Your task to perform on an android device: delete the emails in spam in the gmail app Image 0: 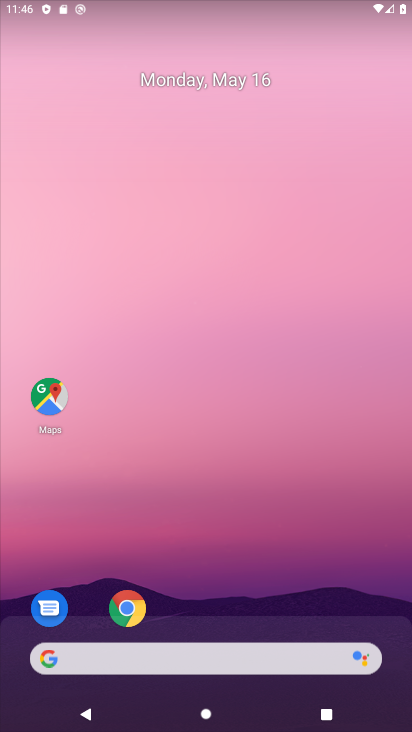
Step 0: drag from (362, 619) to (355, 91)
Your task to perform on an android device: delete the emails in spam in the gmail app Image 1: 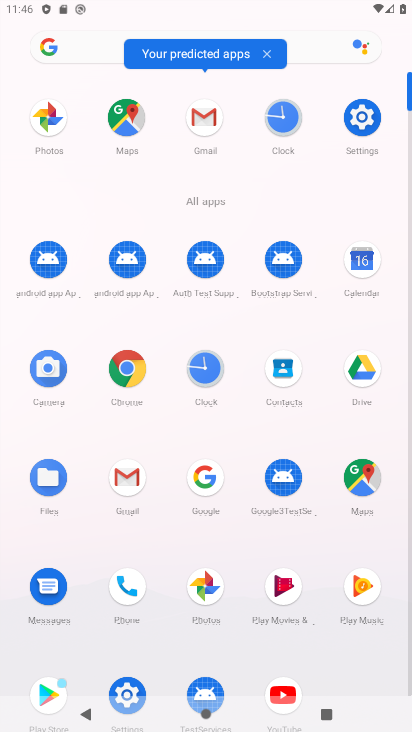
Step 1: click (111, 479)
Your task to perform on an android device: delete the emails in spam in the gmail app Image 2: 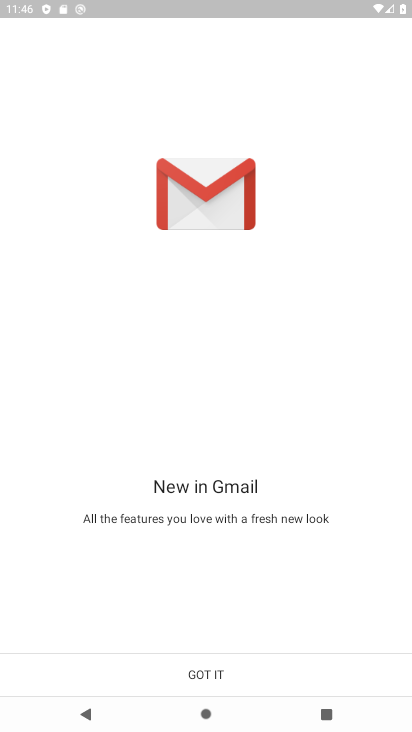
Step 2: click (231, 671)
Your task to perform on an android device: delete the emails in spam in the gmail app Image 3: 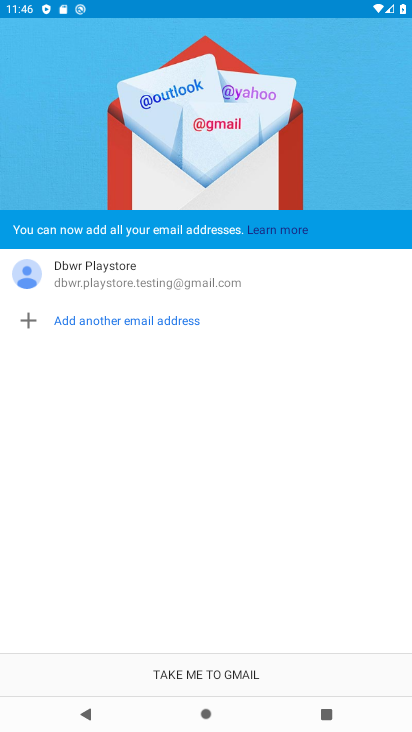
Step 3: click (231, 671)
Your task to perform on an android device: delete the emails in spam in the gmail app Image 4: 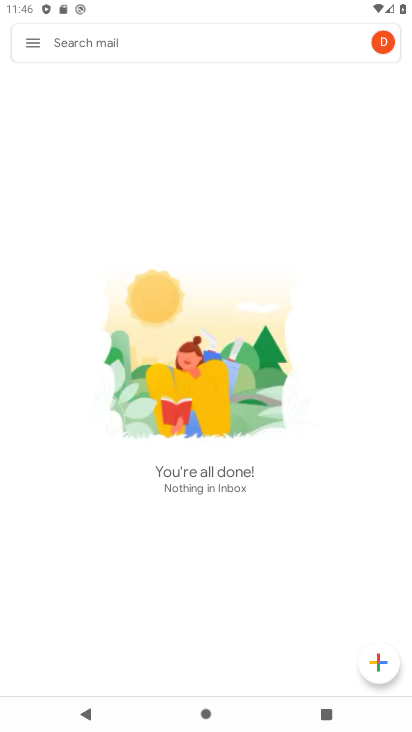
Step 4: click (30, 46)
Your task to perform on an android device: delete the emails in spam in the gmail app Image 5: 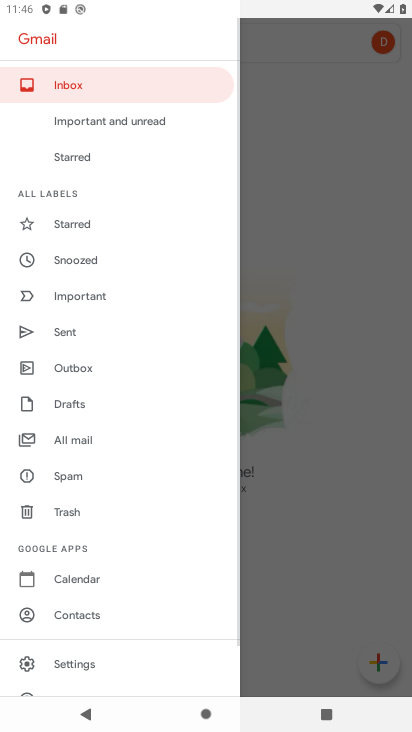
Step 5: drag from (186, 544) to (222, 388)
Your task to perform on an android device: delete the emails in spam in the gmail app Image 6: 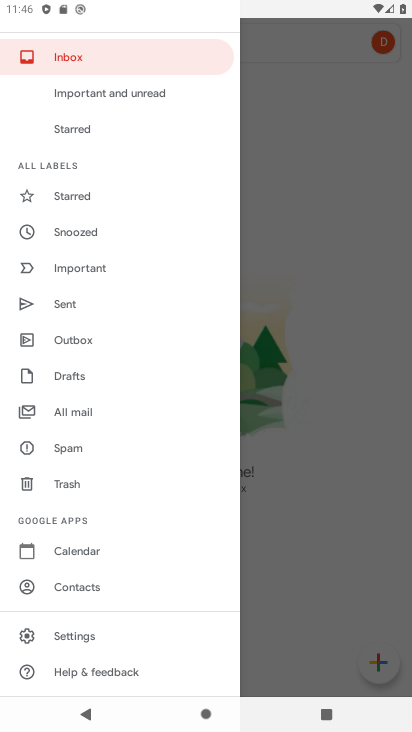
Step 6: drag from (174, 233) to (152, 454)
Your task to perform on an android device: delete the emails in spam in the gmail app Image 7: 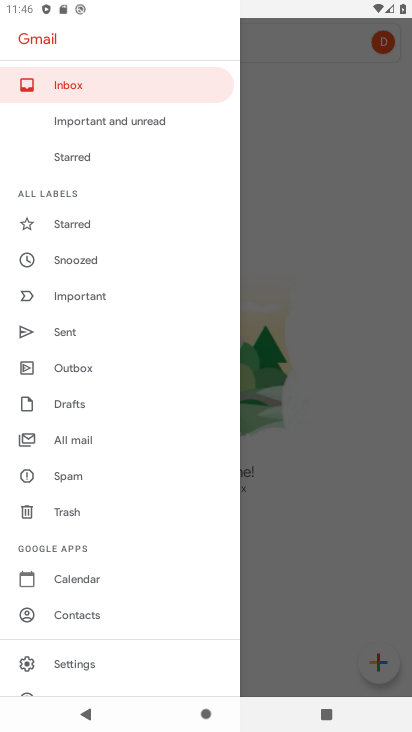
Step 7: click (101, 89)
Your task to perform on an android device: delete the emails in spam in the gmail app Image 8: 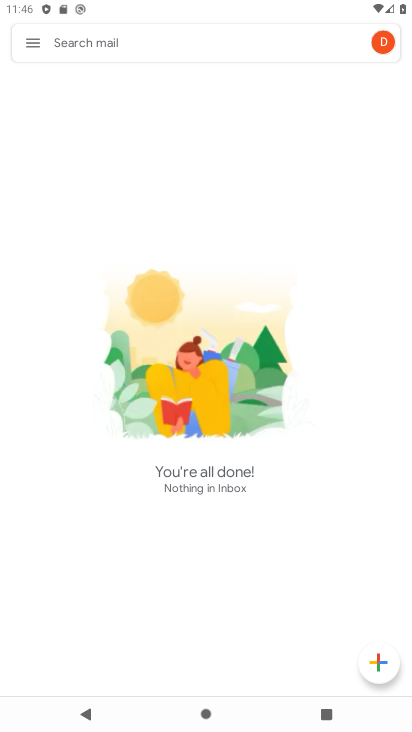
Step 8: task complete